Your task to perform on an android device: Go to privacy settings Image 0: 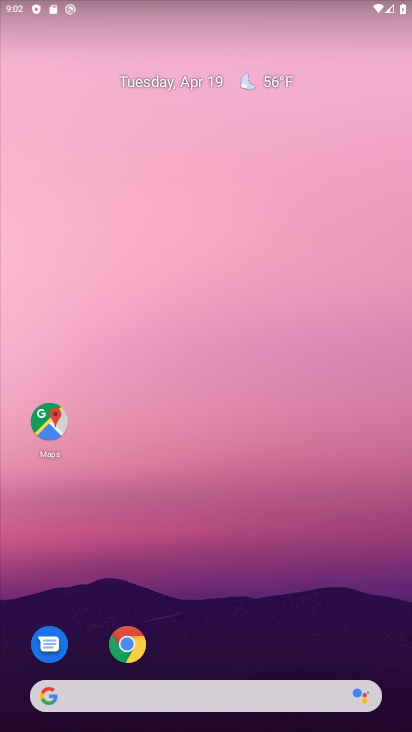
Step 0: drag from (233, 462) to (245, 204)
Your task to perform on an android device: Go to privacy settings Image 1: 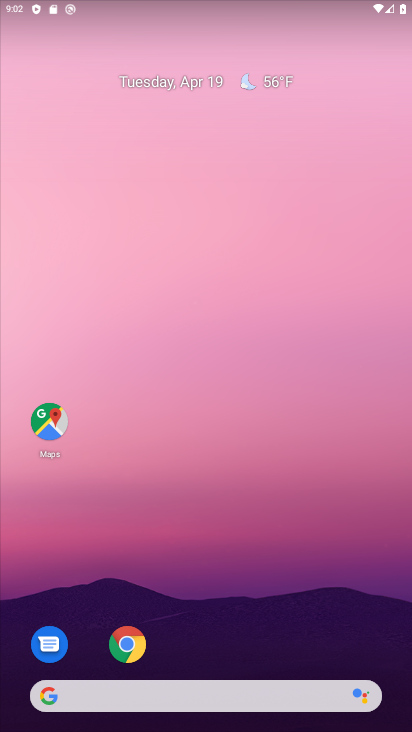
Step 1: drag from (226, 609) to (231, 161)
Your task to perform on an android device: Go to privacy settings Image 2: 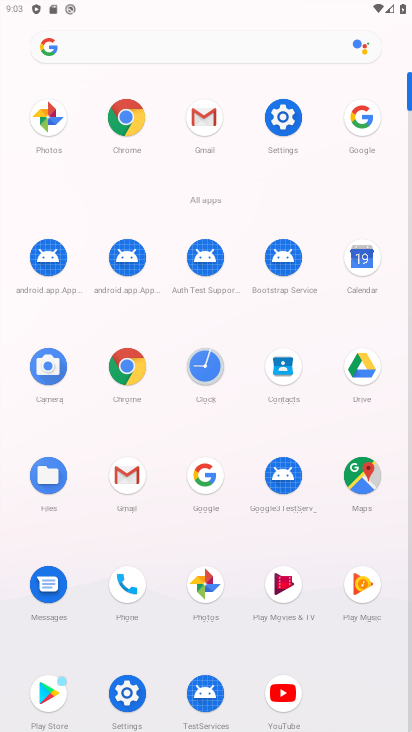
Step 2: click (121, 350)
Your task to perform on an android device: Go to privacy settings Image 3: 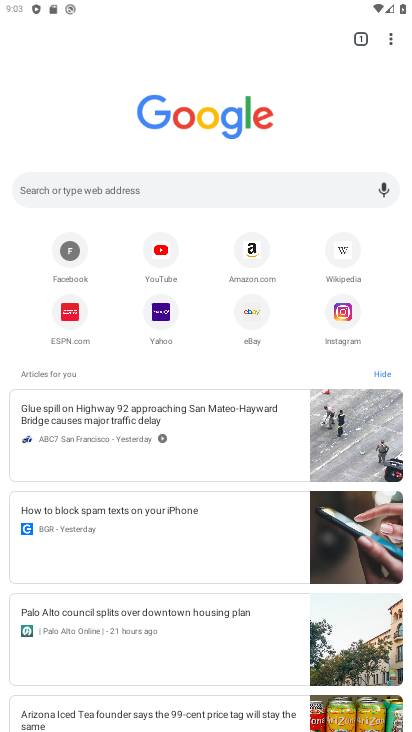
Step 3: drag from (388, 41) to (248, 326)
Your task to perform on an android device: Go to privacy settings Image 4: 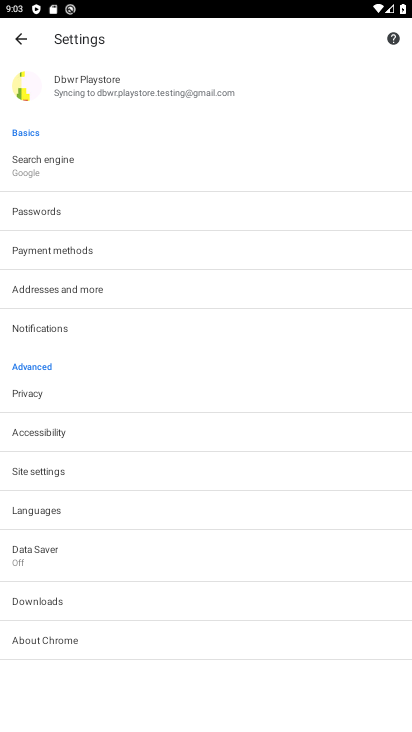
Step 4: click (101, 393)
Your task to perform on an android device: Go to privacy settings Image 5: 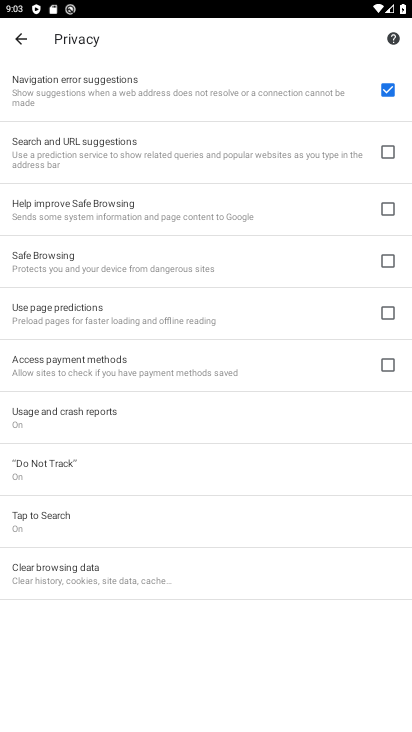
Step 5: task complete